Your task to perform on an android device: turn pop-ups on in chrome Image 0: 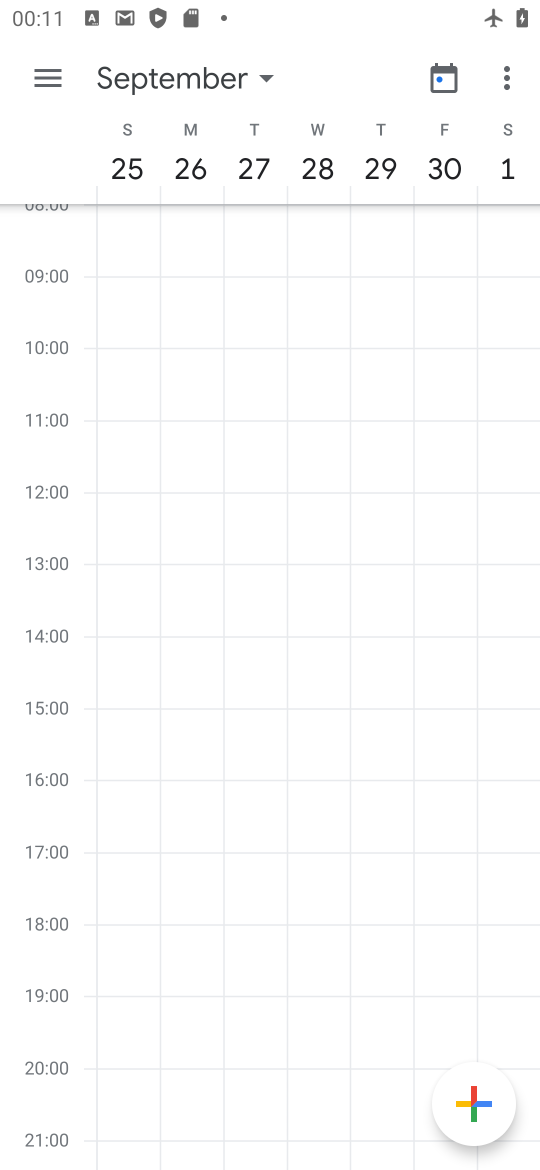
Step 0: press home button
Your task to perform on an android device: turn pop-ups on in chrome Image 1: 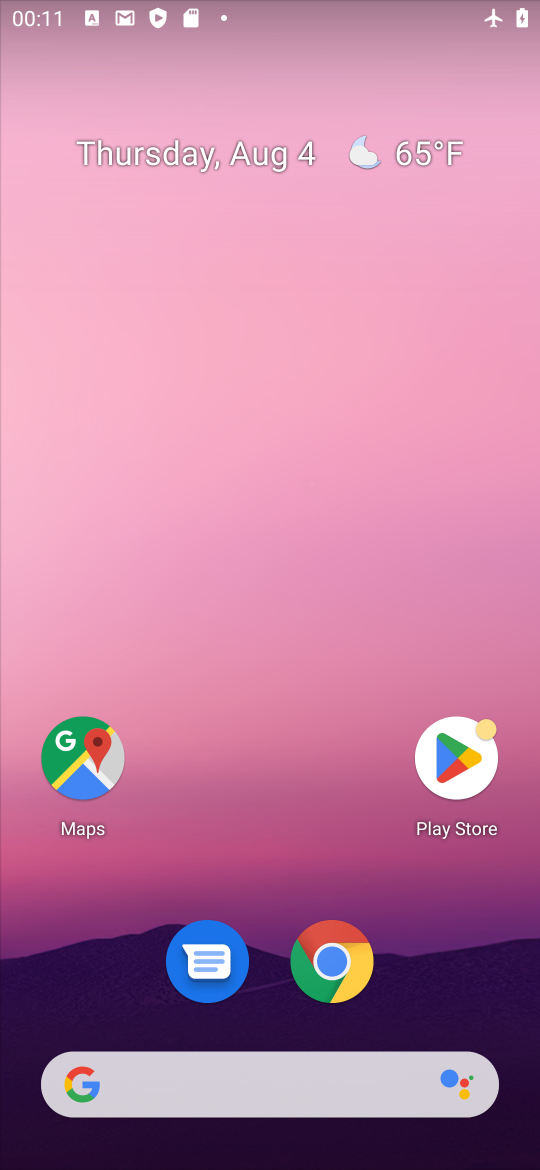
Step 1: click (347, 961)
Your task to perform on an android device: turn pop-ups on in chrome Image 2: 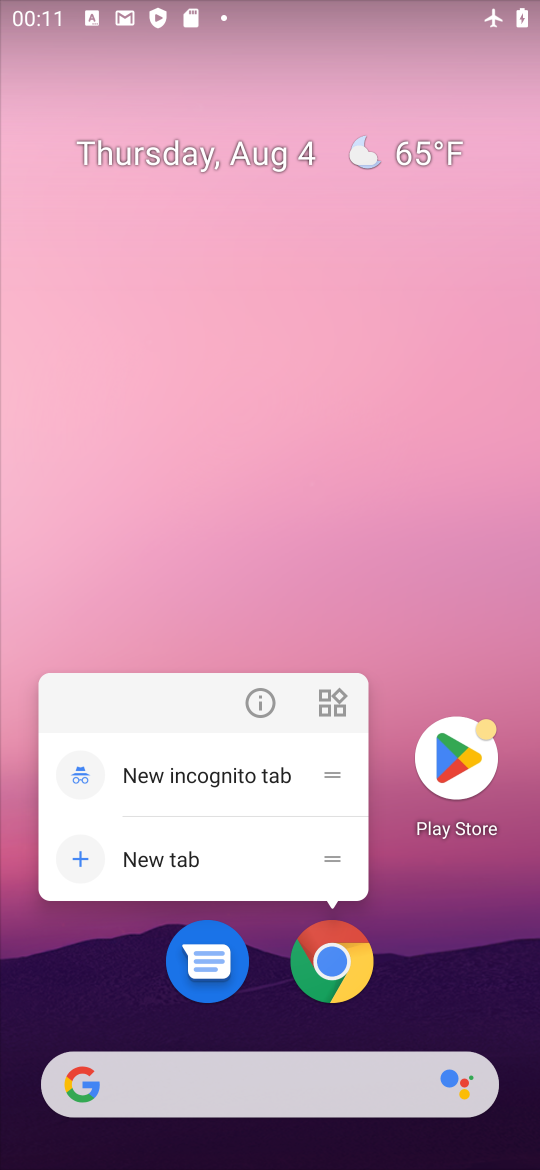
Step 2: click (347, 961)
Your task to perform on an android device: turn pop-ups on in chrome Image 3: 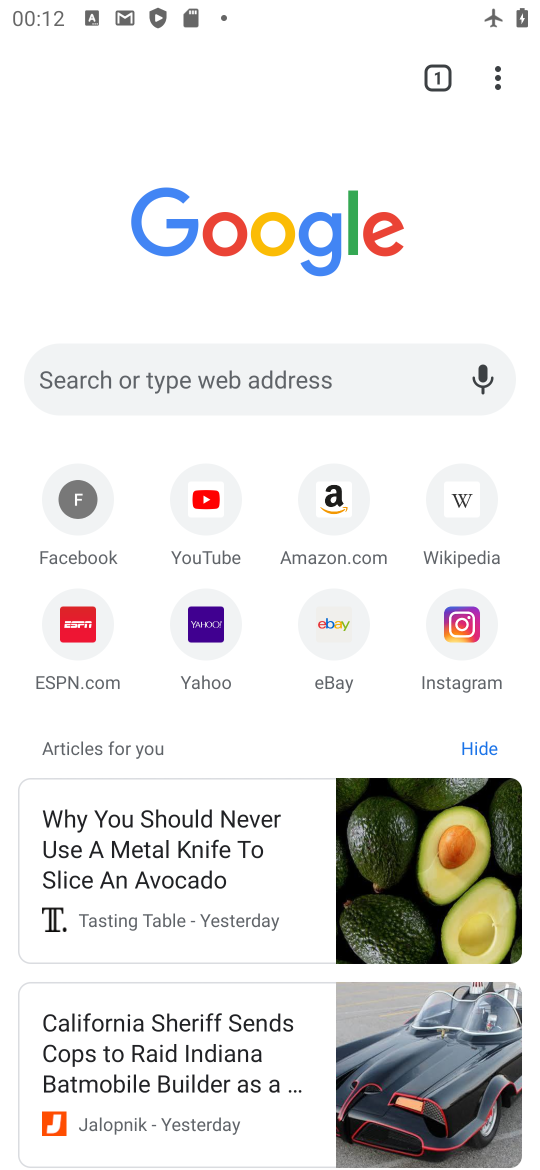
Step 3: click (492, 80)
Your task to perform on an android device: turn pop-ups on in chrome Image 4: 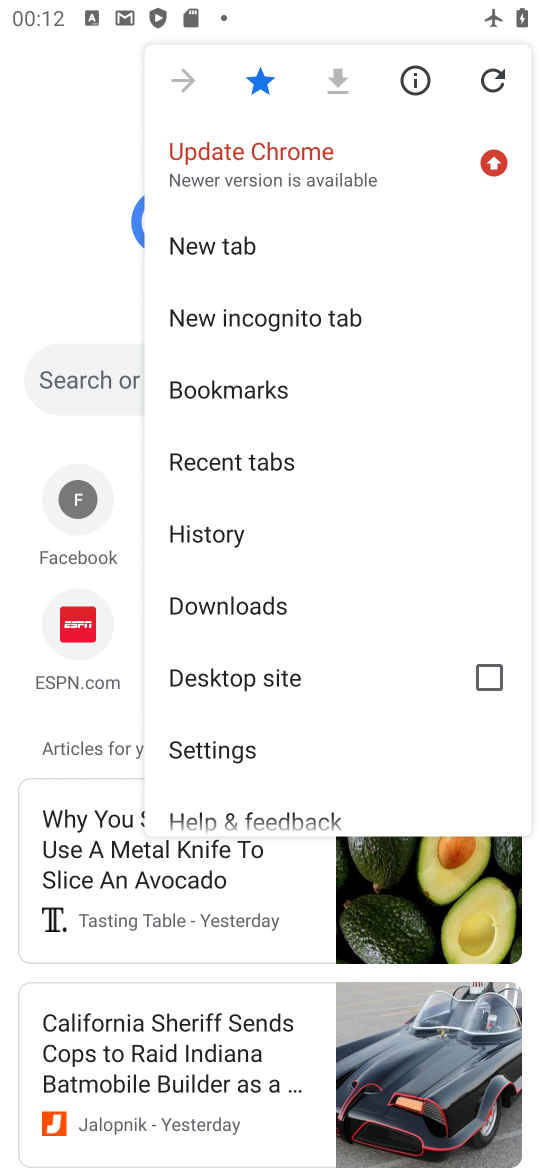
Step 4: click (238, 754)
Your task to perform on an android device: turn pop-ups on in chrome Image 5: 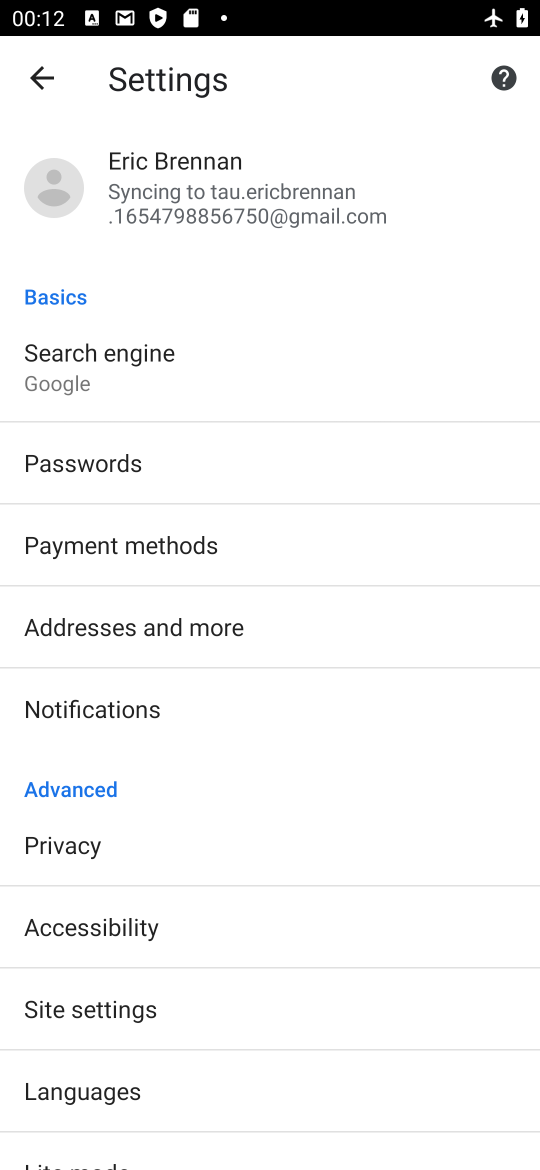
Step 5: click (137, 1006)
Your task to perform on an android device: turn pop-ups on in chrome Image 6: 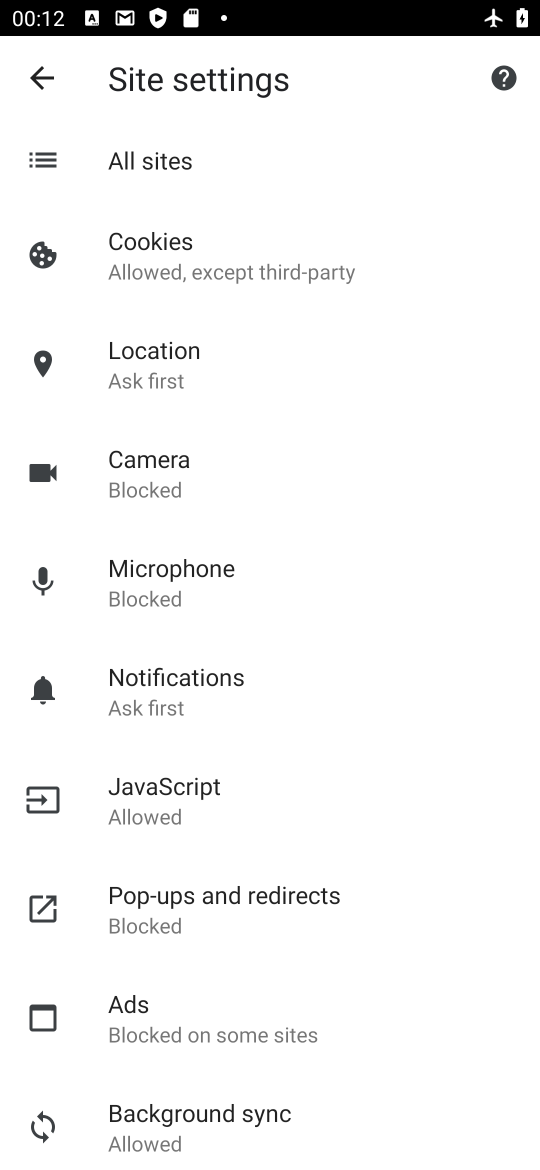
Step 6: click (202, 909)
Your task to perform on an android device: turn pop-ups on in chrome Image 7: 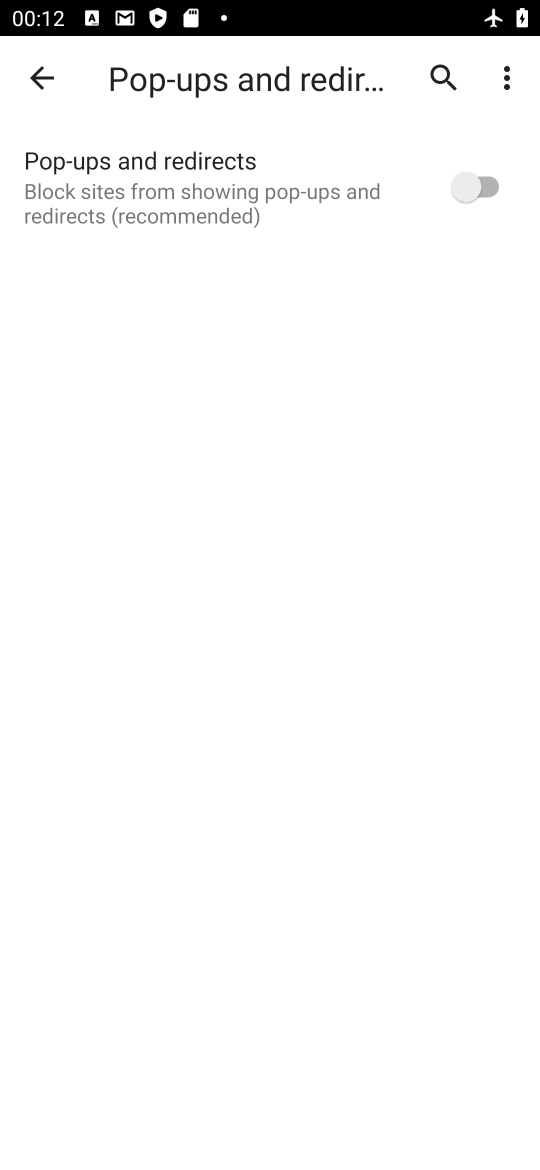
Step 7: click (481, 187)
Your task to perform on an android device: turn pop-ups on in chrome Image 8: 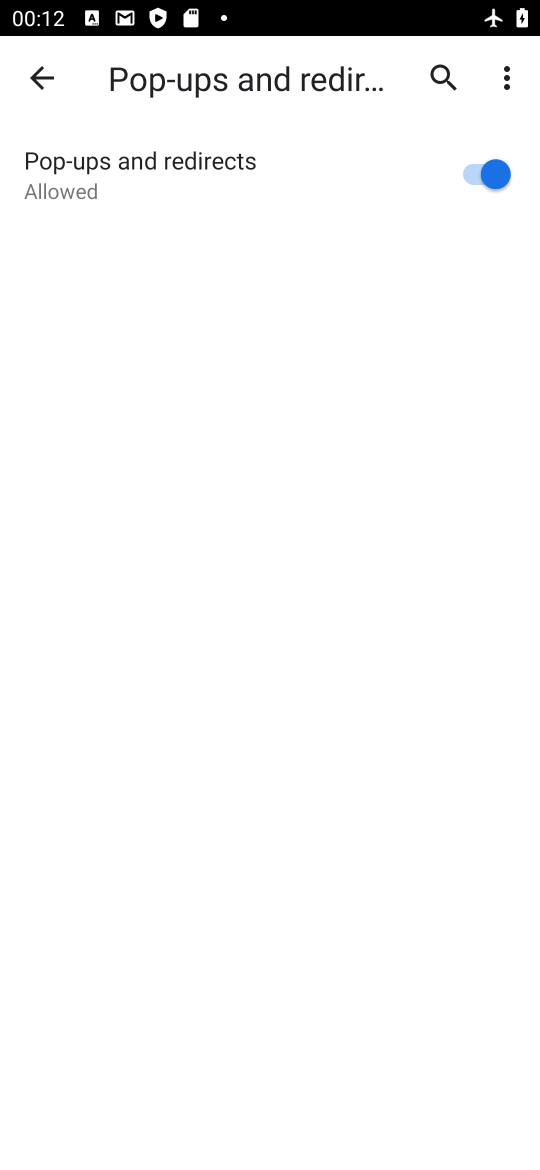
Step 8: task complete